Your task to perform on an android device: find photos in the google photos app Image 0: 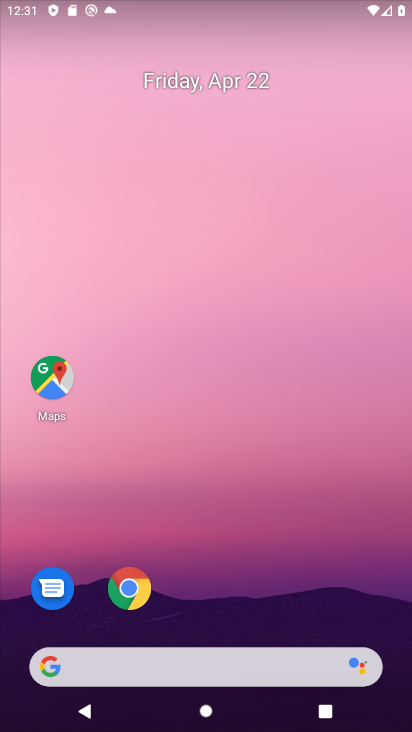
Step 0: drag from (258, 676) to (241, 171)
Your task to perform on an android device: find photos in the google photos app Image 1: 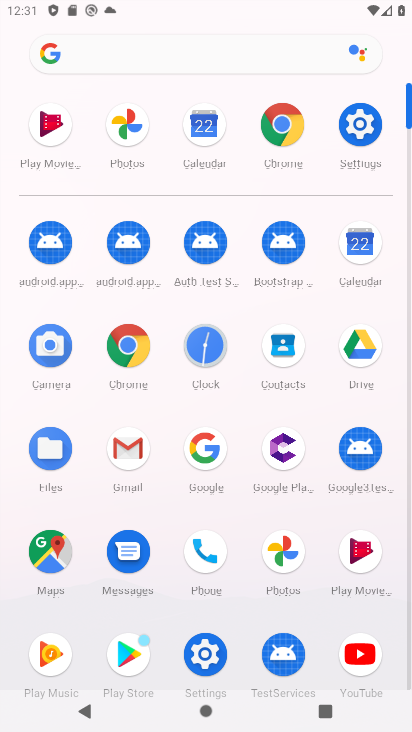
Step 1: click (284, 533)
Your task to perform on an android device: find photos in the google photos app Image 2: 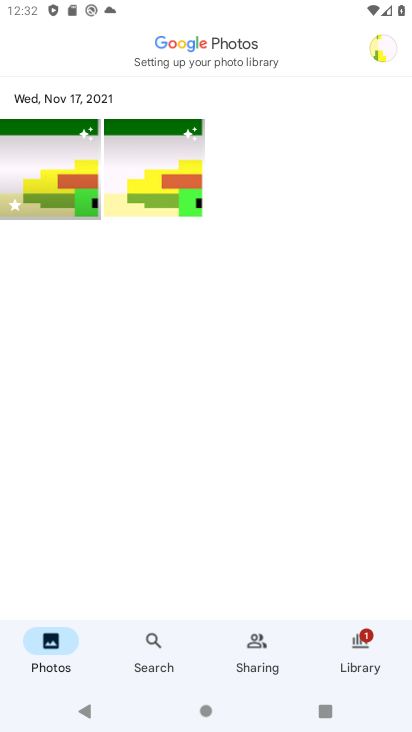
Step 2: task complete